Your task to perform on an android device: Turn on the flashlight Image 0: 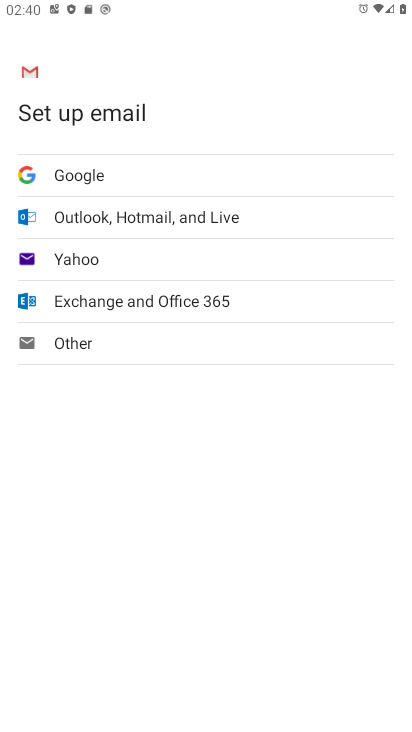
Step 0: press home button
Your task to perform on an android device: Turn on the flashlight Image 1: 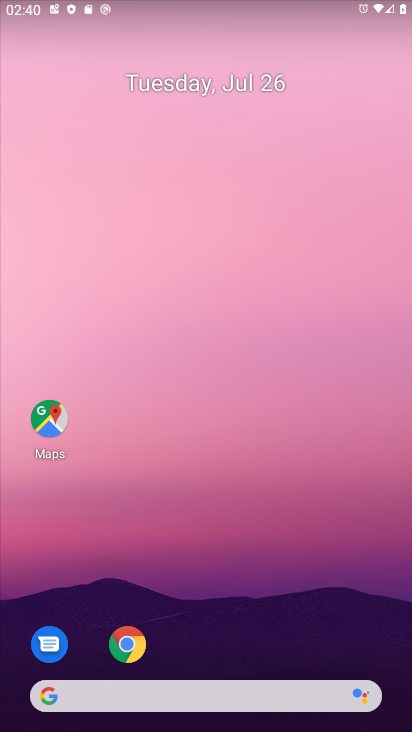
Step 1: drag from (176, 642) to (194, 237)
Your task to perform on an android device: Turn on the flashlight Image 2: 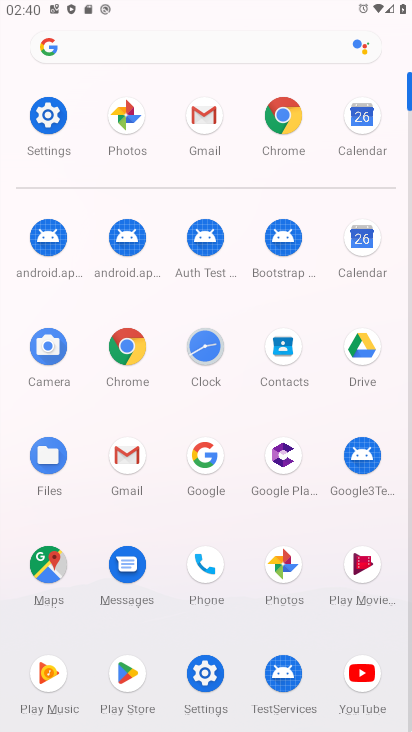
Step 2: click (40, 104)
Your task to perform on an android device: Turn on the flashlight Image 3: 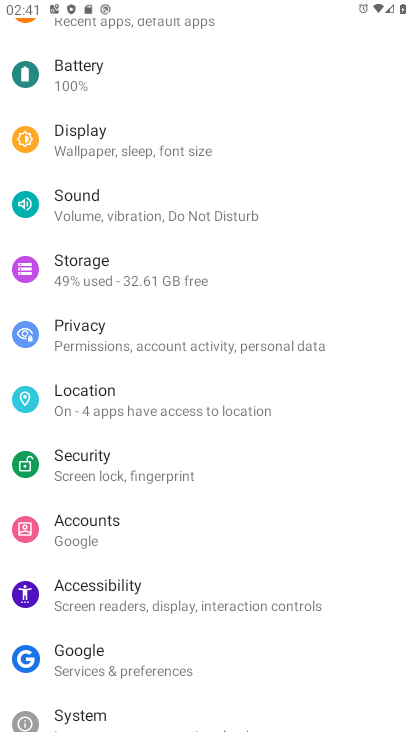
Step 3: task complete